Your task to perform on an android device: Add lenovo thinkpad to the cart on target Image 0: 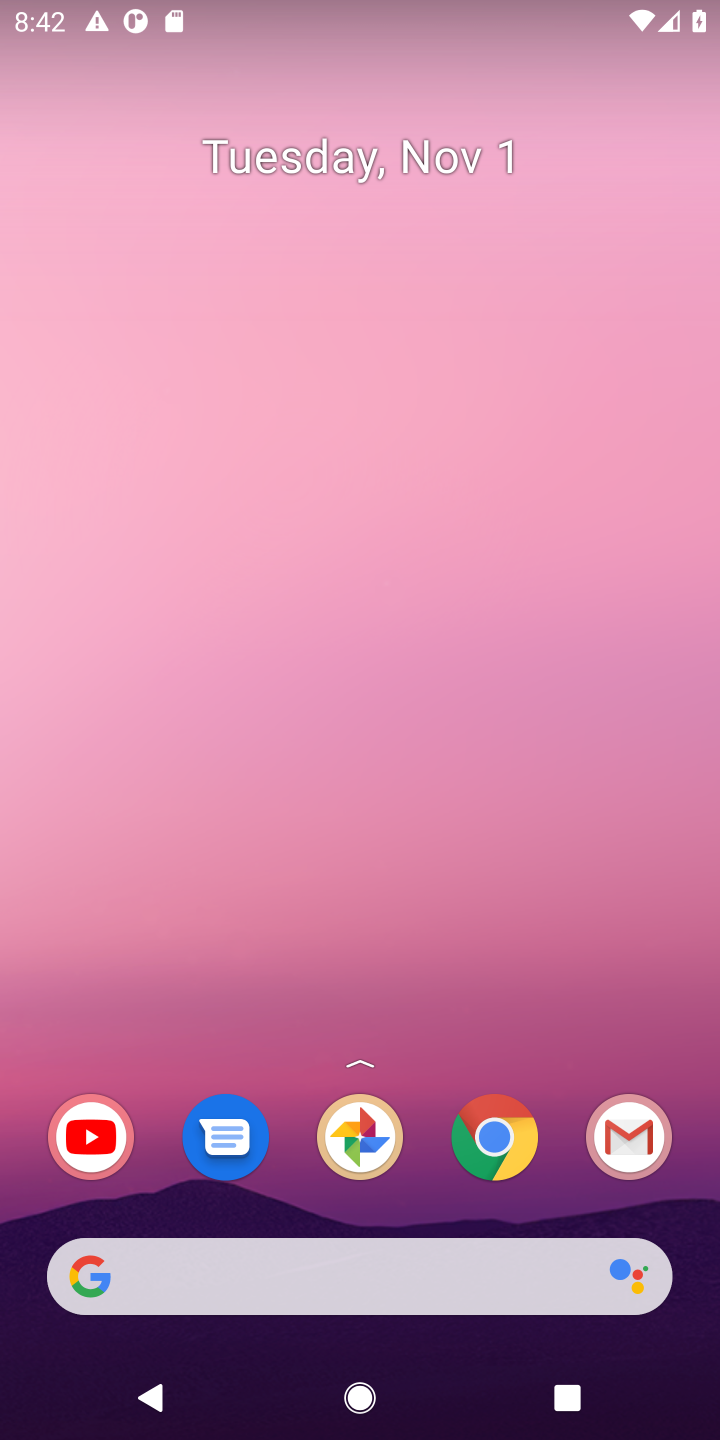
Step 0: click (488, 1289)
Your task to perform on an android device: Add lenovo thinkpad to the cart on target Image 1: 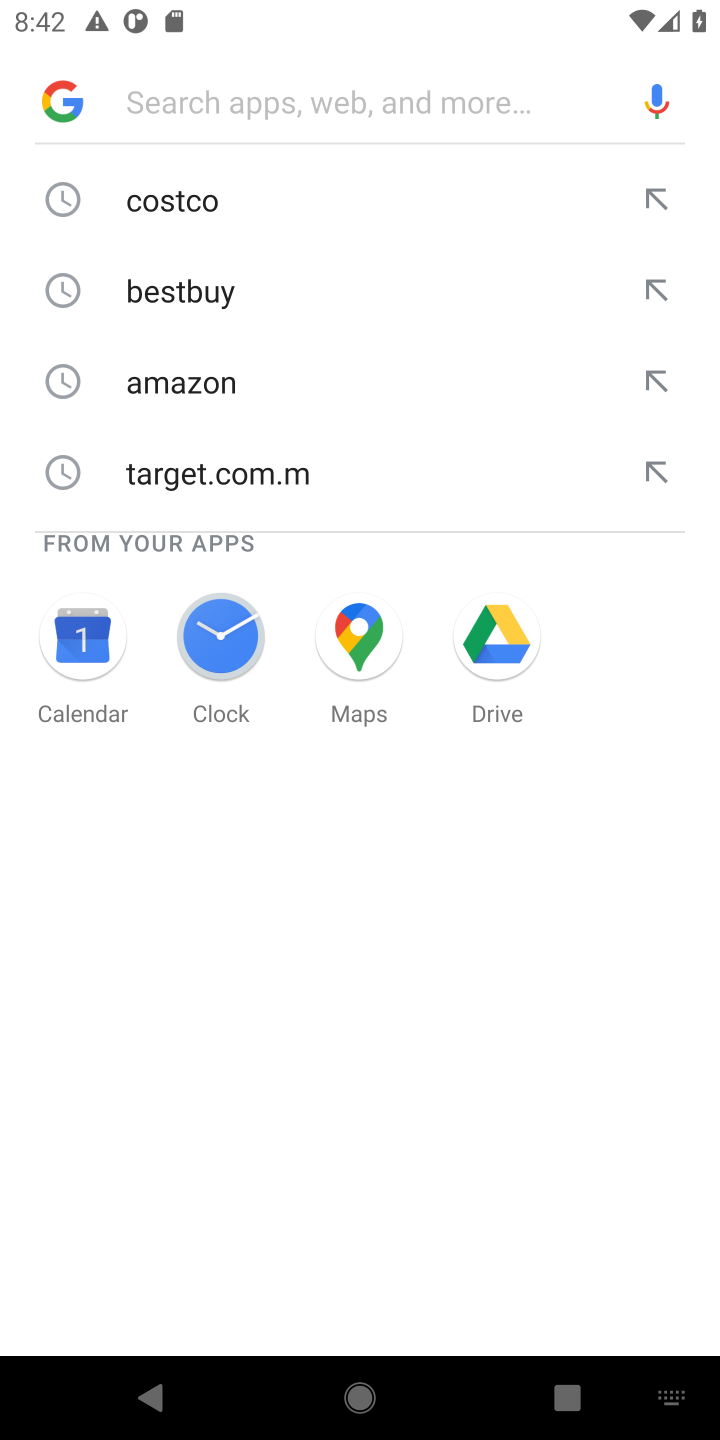
Step 1: click (225, 474)
Your task to perform on an android device: Add lenovo thinkpad to the cart on target Image 2: 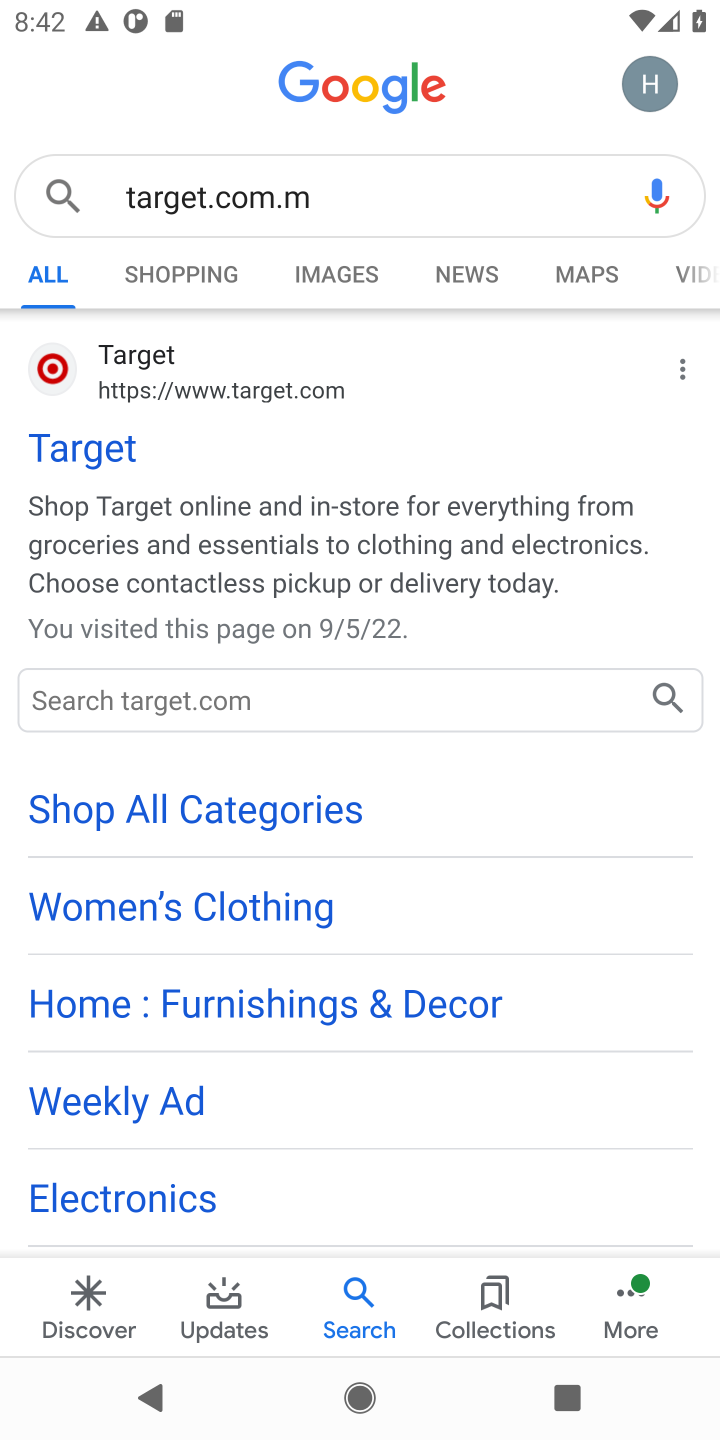
Step 2: click (128, 370)
Your task to perform on an android device: Add lenovo thinkpad to the cart on target Image 3: 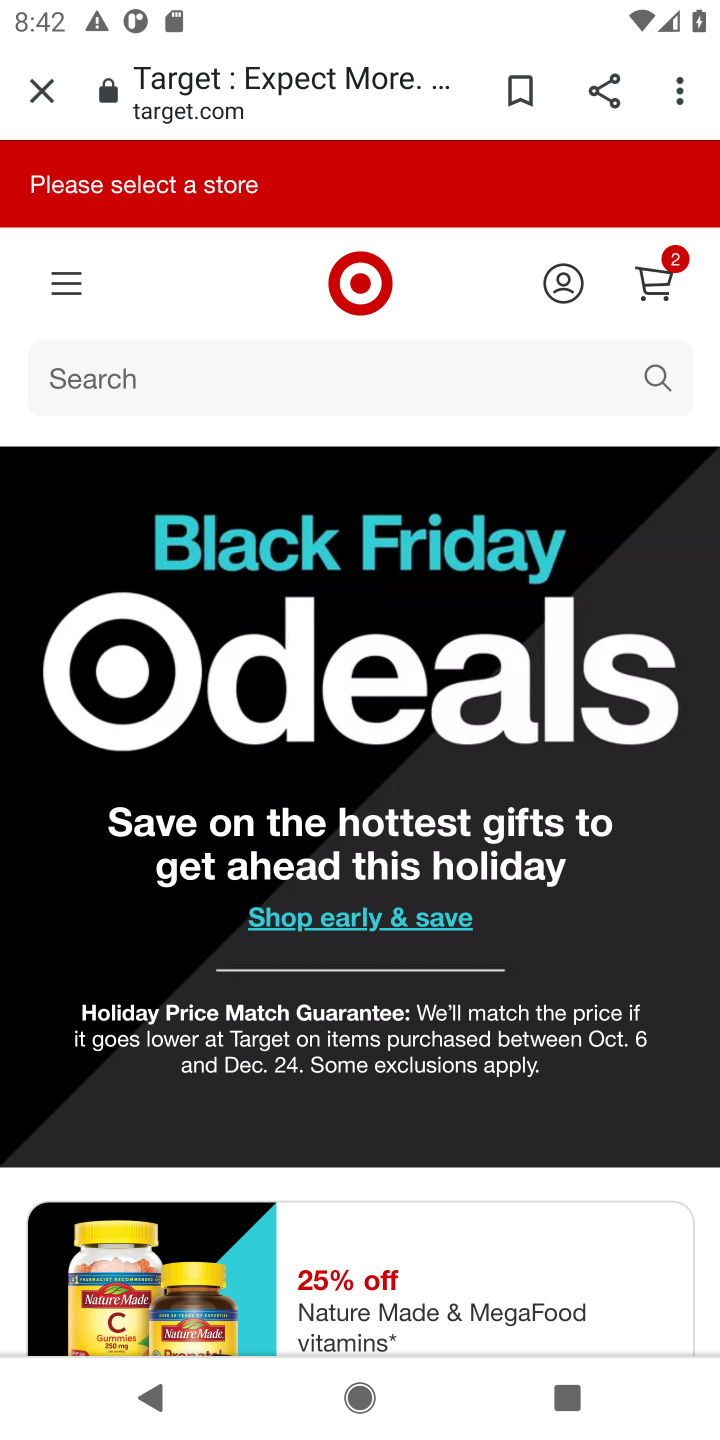
Step 3: click (306, 379)
Your task to perform on an android device: Add lenovo thinkpad to the cart on target Image 4: 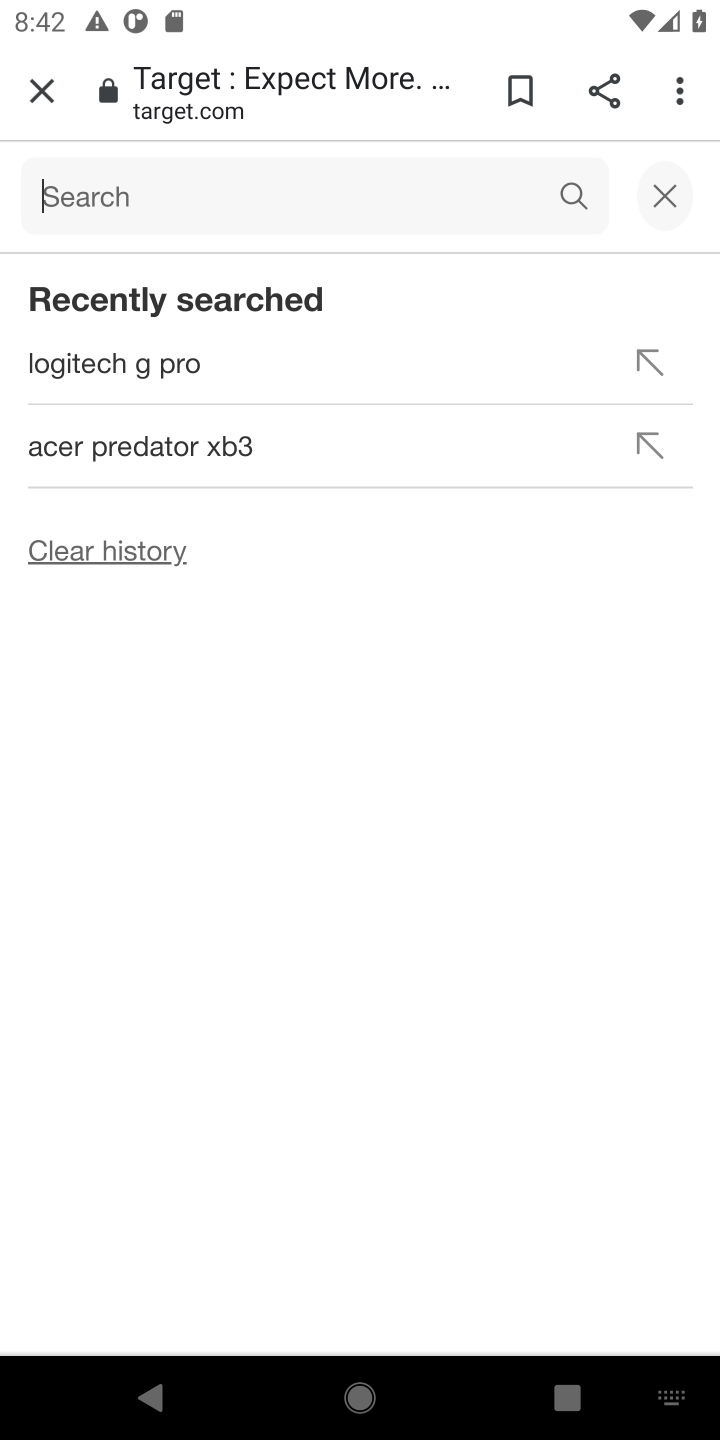
Step 4: type "target"
Your task to perform on an android device: Add lenovo thinkpad to the cart on target Image 5: 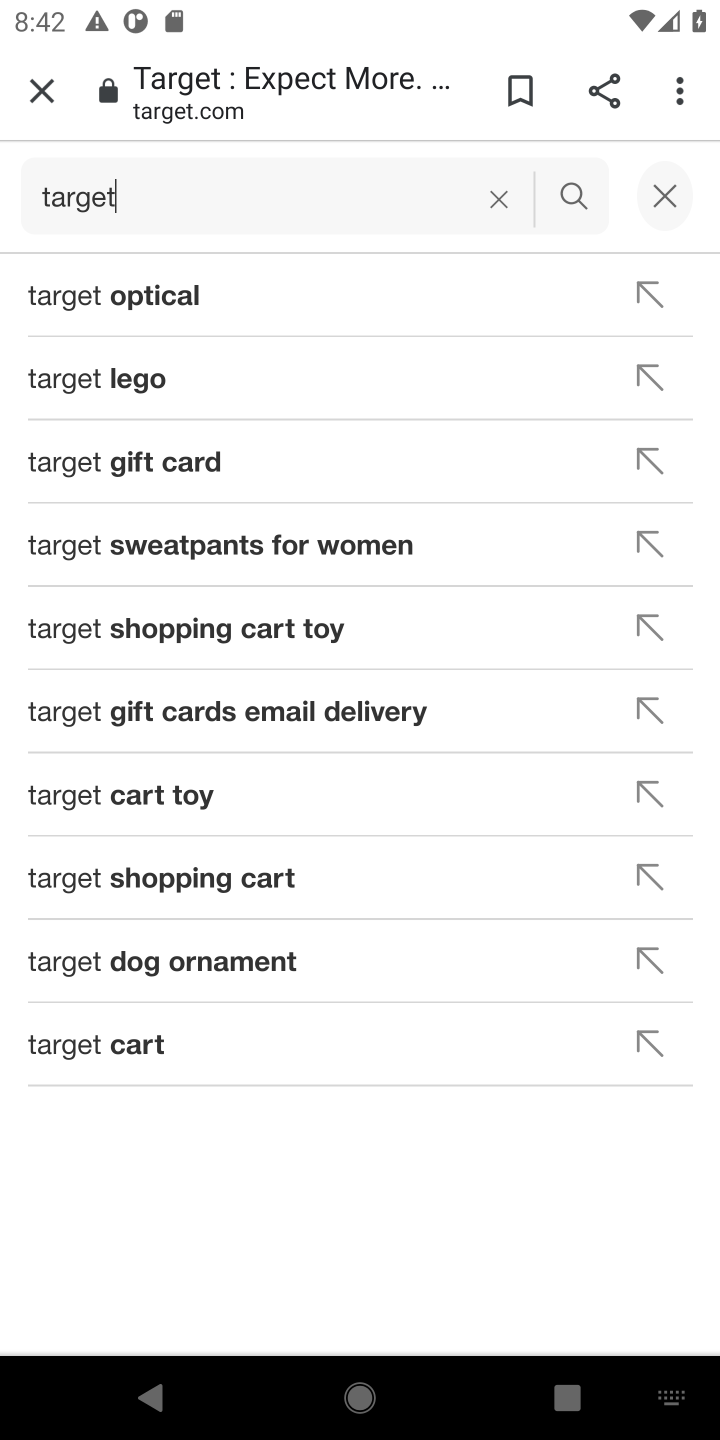
Step 5: click (491, 200)
Your task to perform on an android device: Add lenovo thinkpad to the cart on target Image 6: 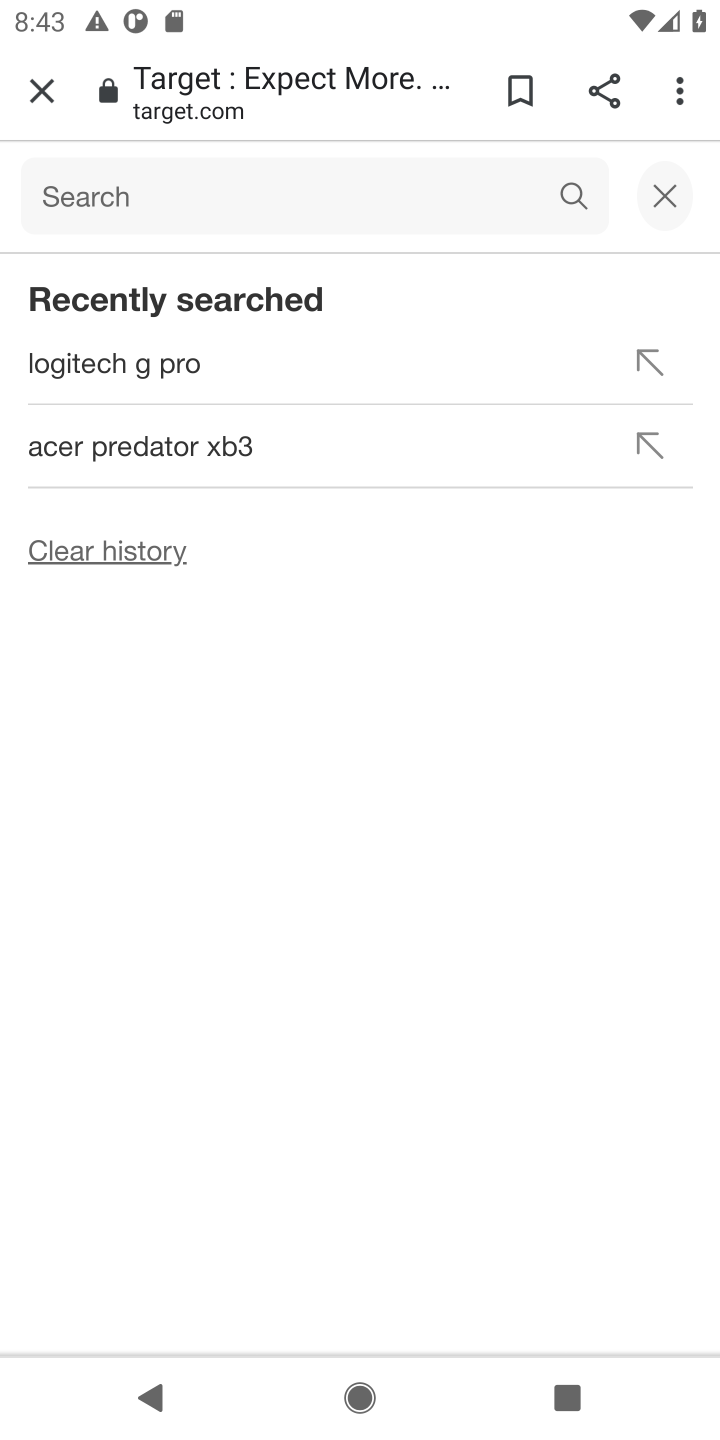
Step 6: click (298, 167)
Your task to perform on an android device: Add lenovo thinkpad to the cart on target Image 7: 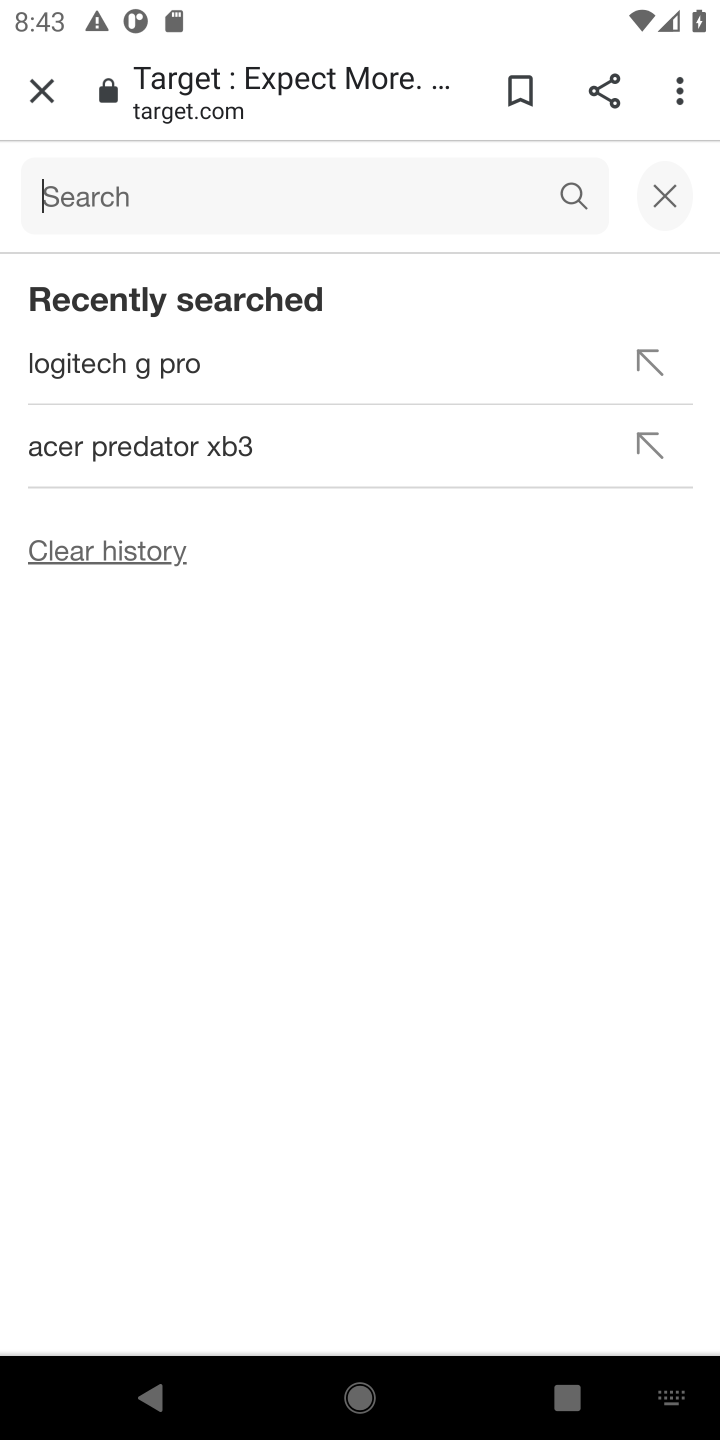
Step 7: type "enovo thinkpad "
Your task to perform on an android device: Add lenovo thinkpad to the cart on target Image 8: 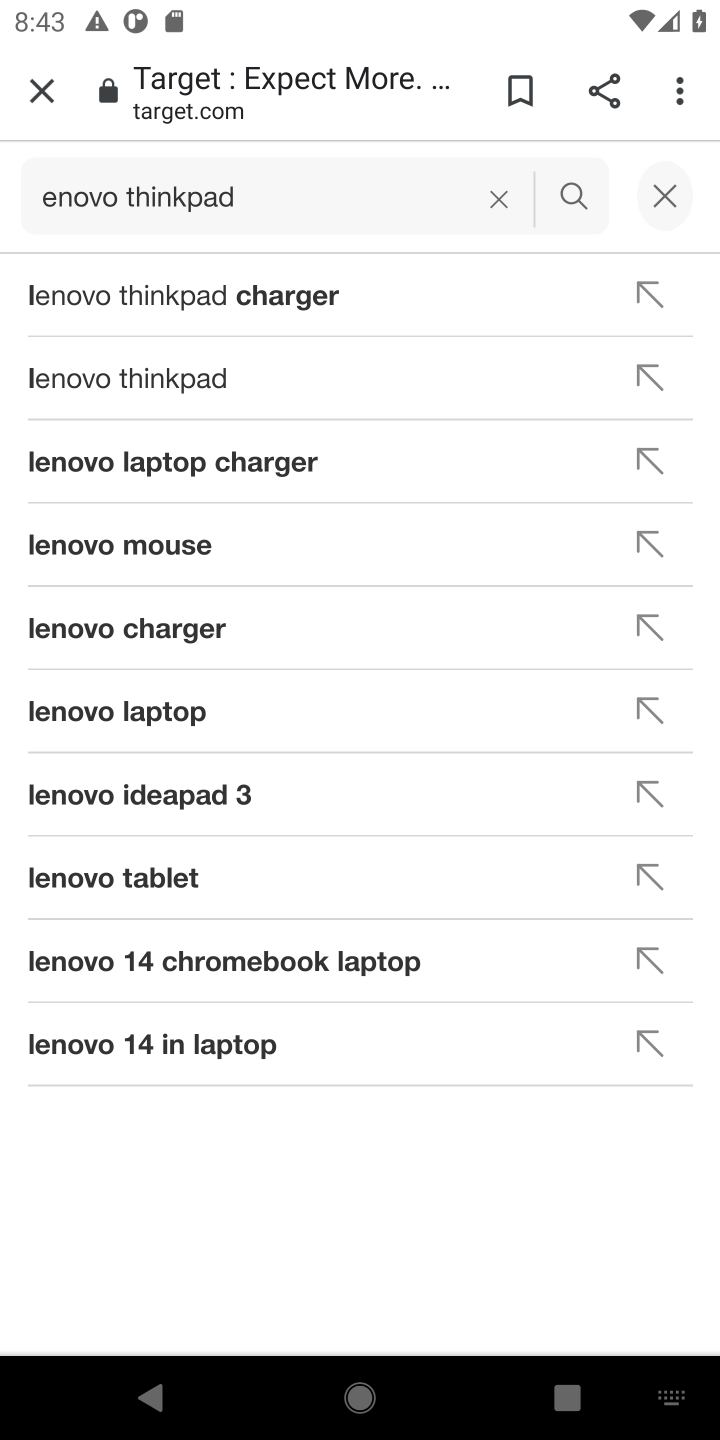
Step 8: click (178, 358)
Your task to perform on an android device: Add lenovo thinkpad to the cart on target Image 9: 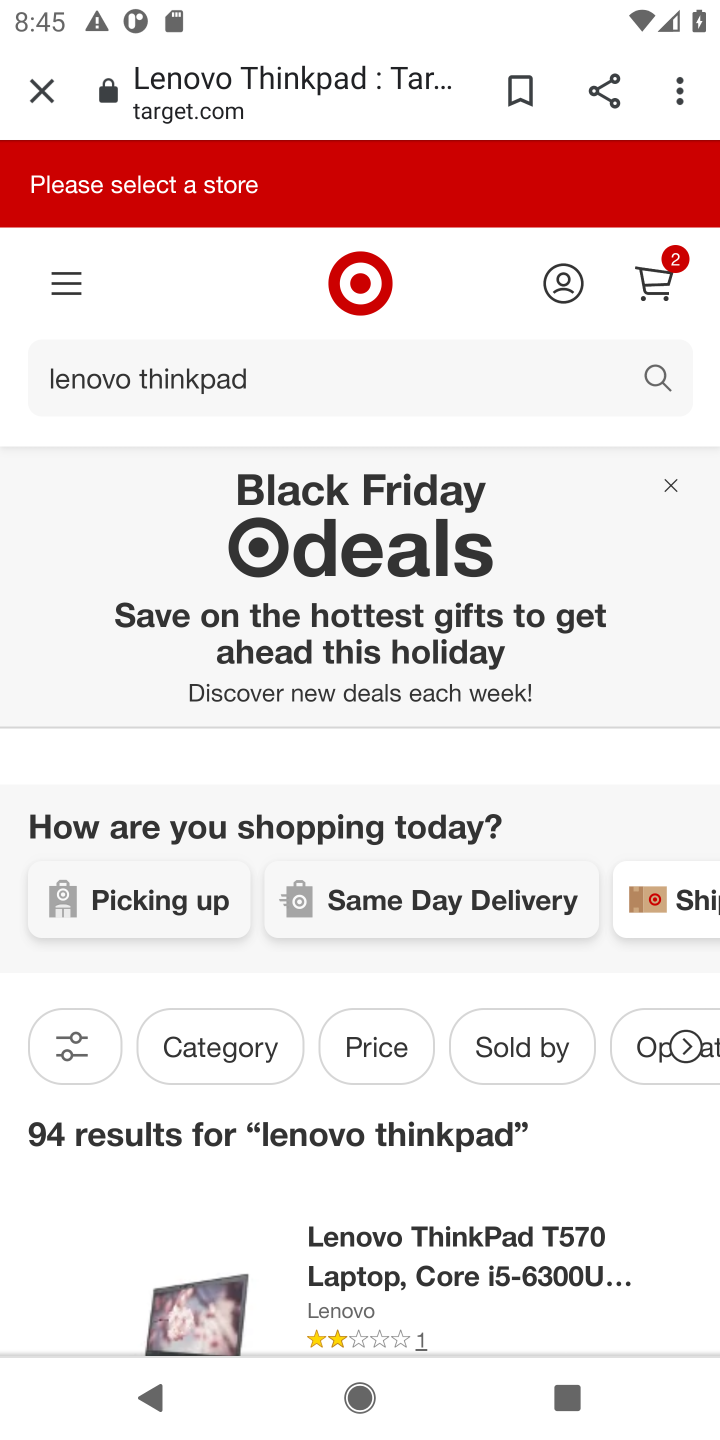
Step 9: click (464, 1261)
Your task to perform on an android device: Add lenovo thinkpad to the cart on target Image 10: 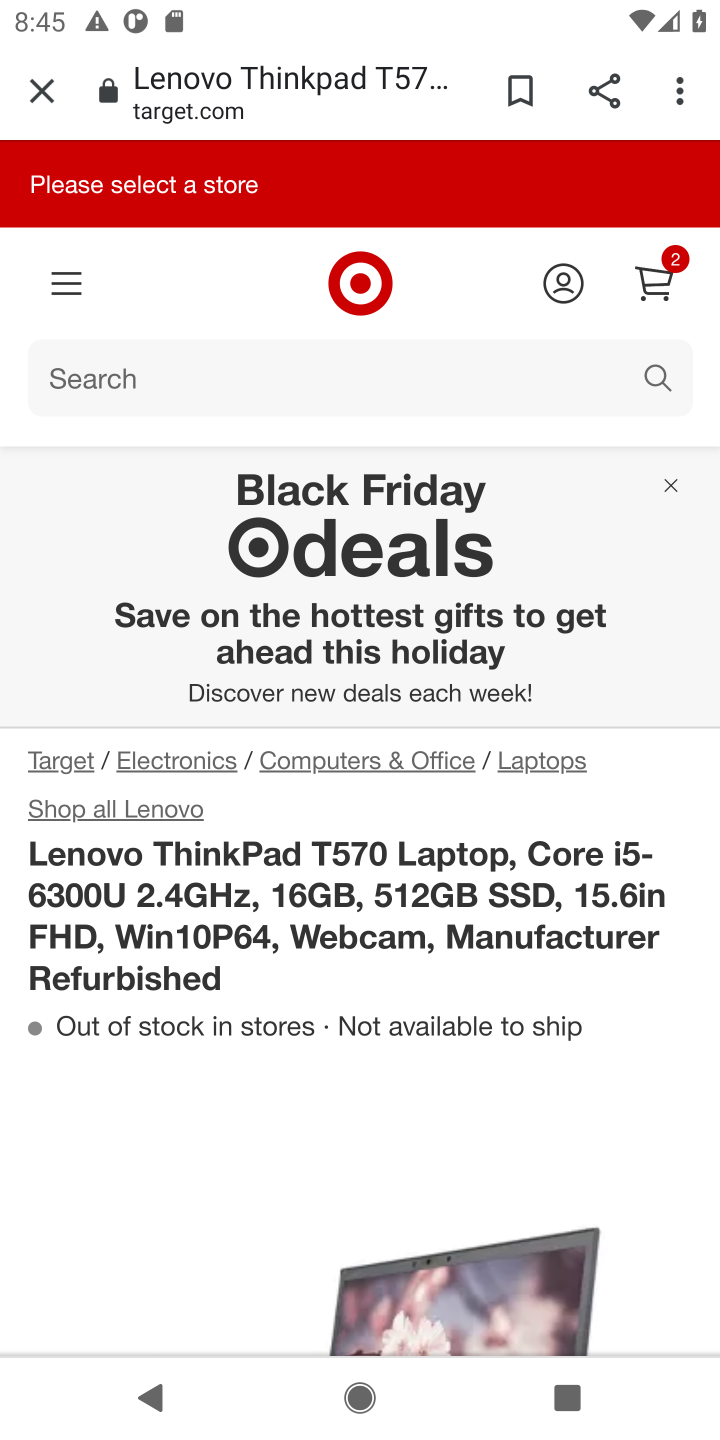
Step 10: drag from (464, 1154) to (471, 808)
Your task to perform on an android device: Add lenovo thinkpad to the cart on target Image 11: 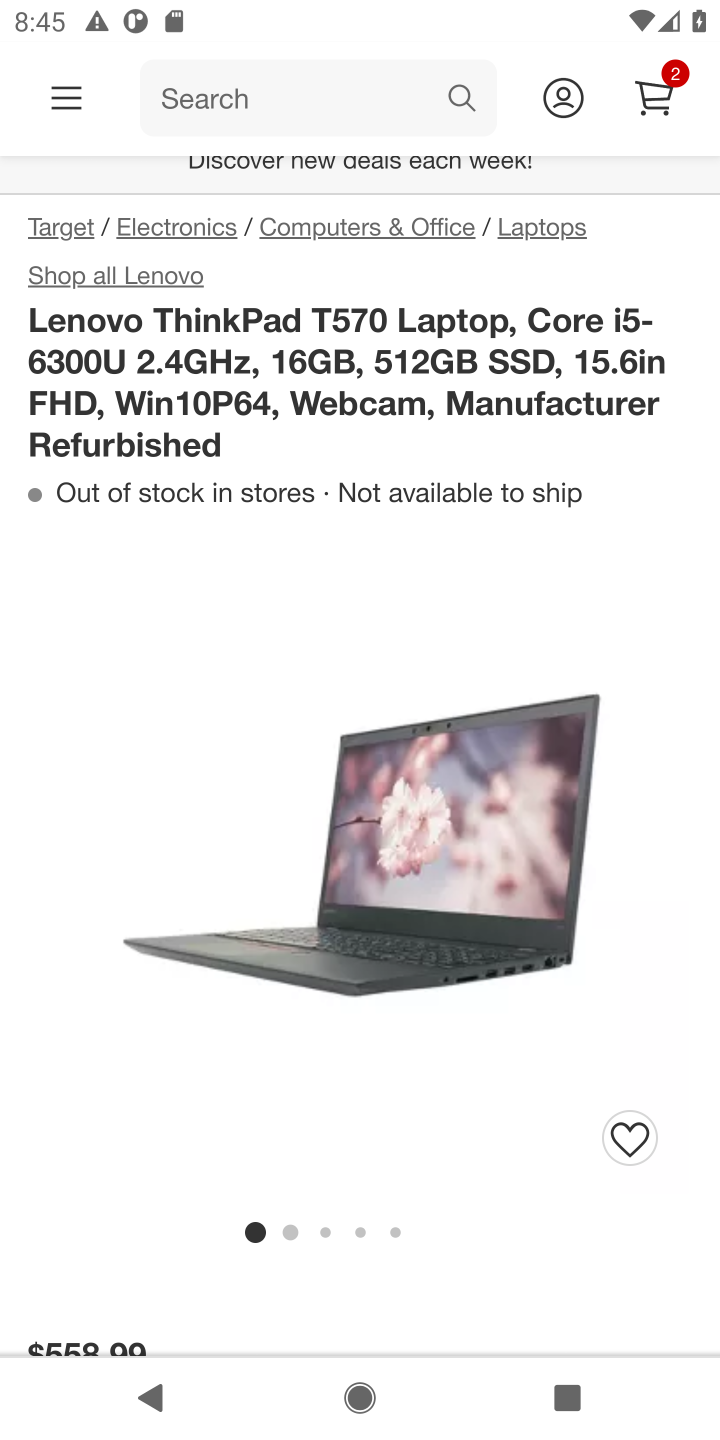
Step 11: drag from (341, 1155) to (341, 799)
Your task to perform on an android device: Add lenovo thinkpad to the cart on target Image 12: 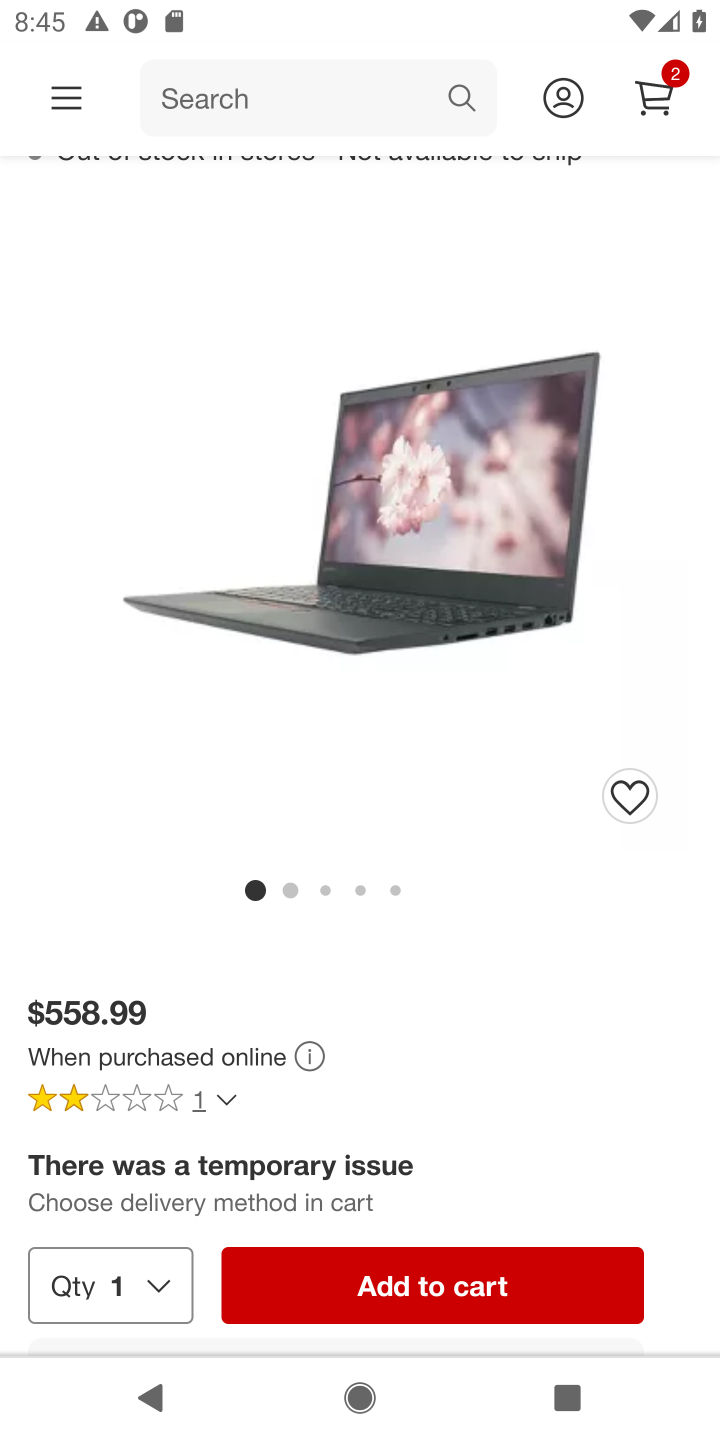
Step 12: click (399, 1283)
Your task to perform on an android device: Add lenovo thinkpad to the cart on target Image 13: 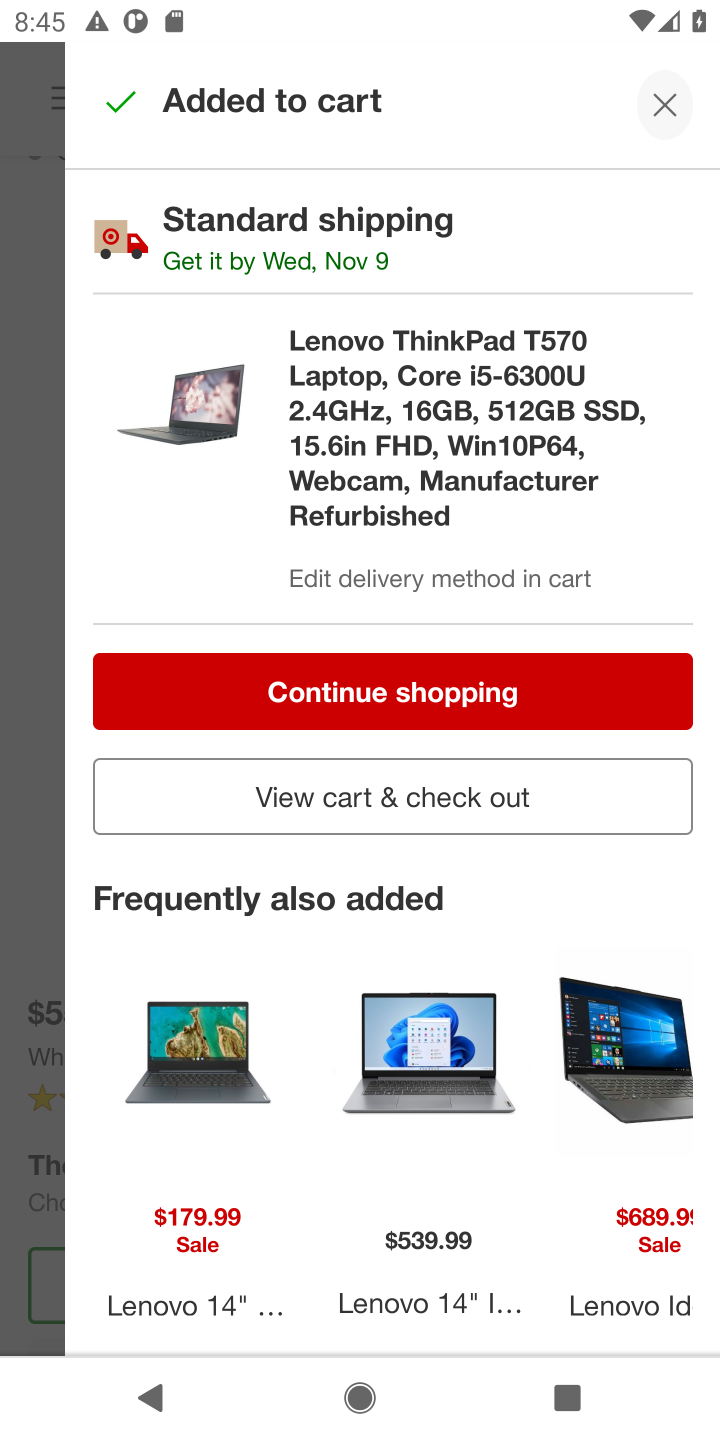
Step 13: click (375, 809)
Your task to perform on an android device: Add lenovo thinkpad to the cart on target Image 14: 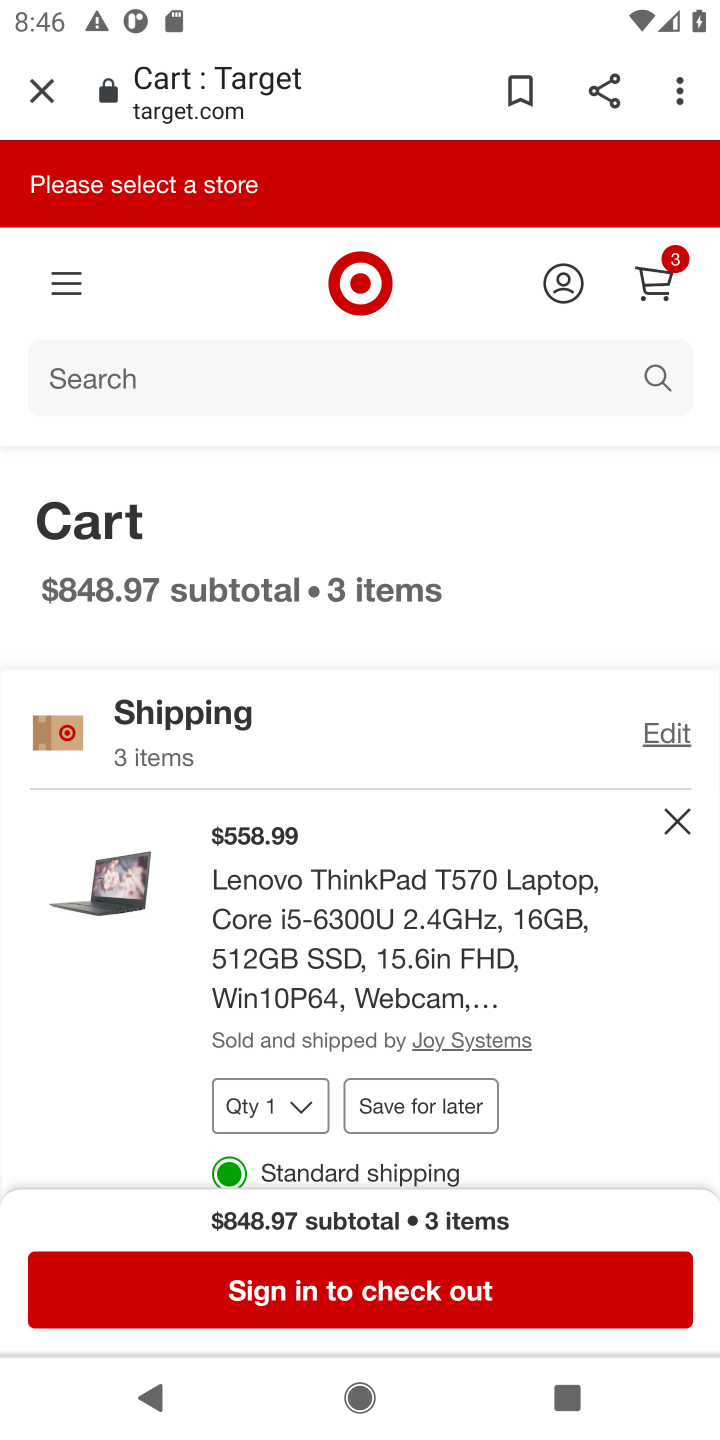
Step 14: task complete